Your task to perform on an android device: Open display settings Image 0: 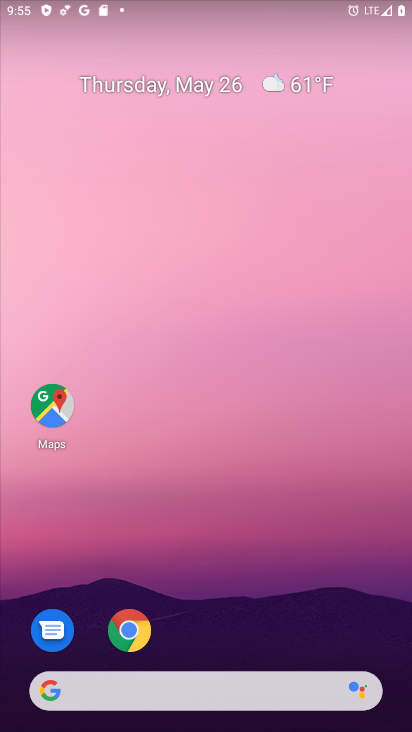
Step 0: drag from (198, 655) to (212, 48)
Your task to perform on an android device: Open display settings Image 1: 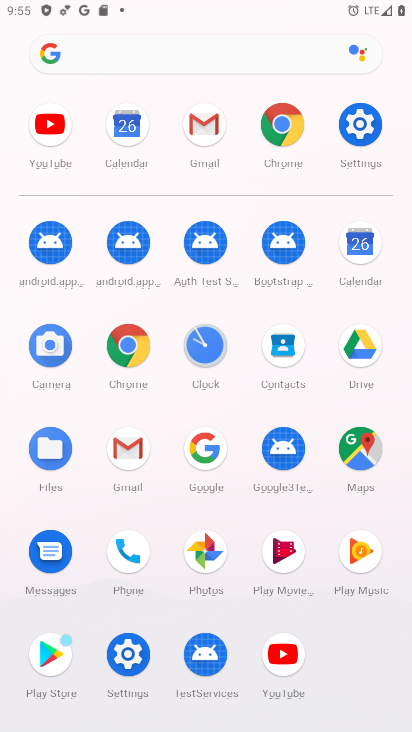
Step 1: click (332, 125)
Your task to perform on an android device: Open display settings Image 2: 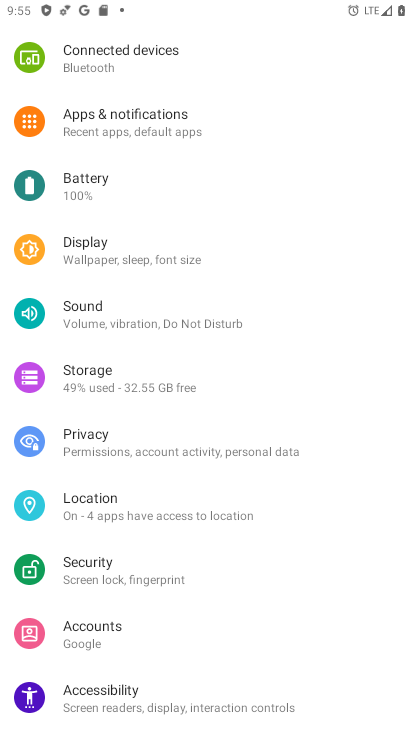
Step 2: click (117, 236)
Your task to perform on an android device: Open display settings Image 3: 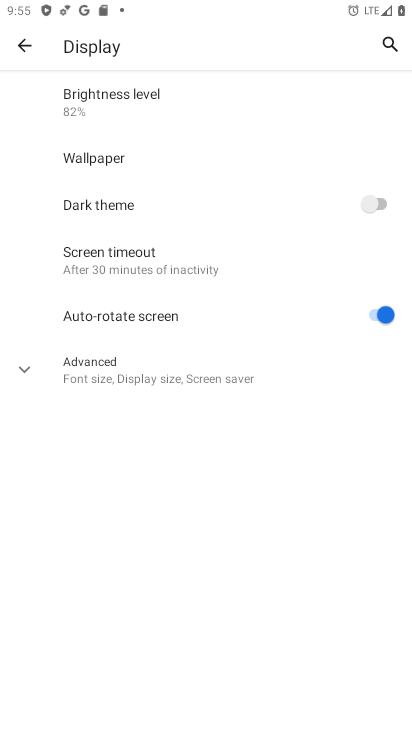
Step 3: click (87, 353)
Your task to perform on an android device: Open display settings Image 4: 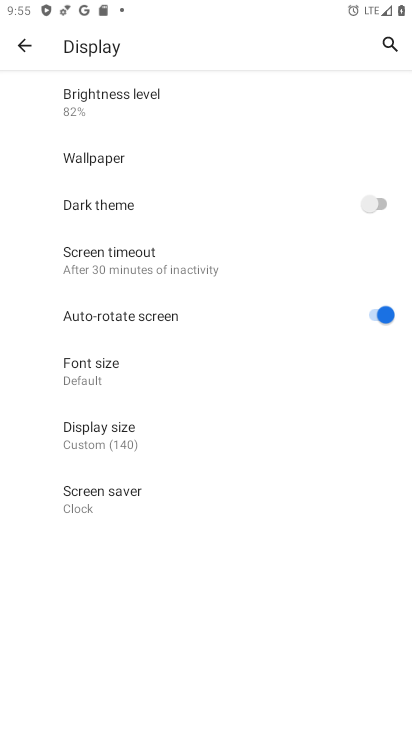
Step 4: task complete